Your task to perform on an android device: Go to Reddit.com Image 0: 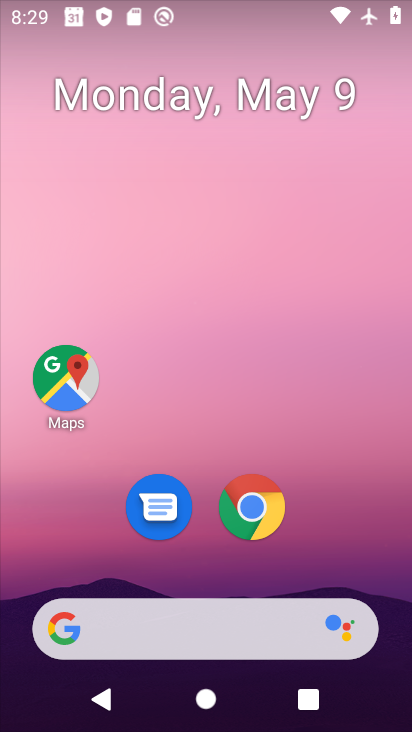
Step 0: click (256, 527)
Your task to perform on an android device: Go to Reddit.com Image 1: 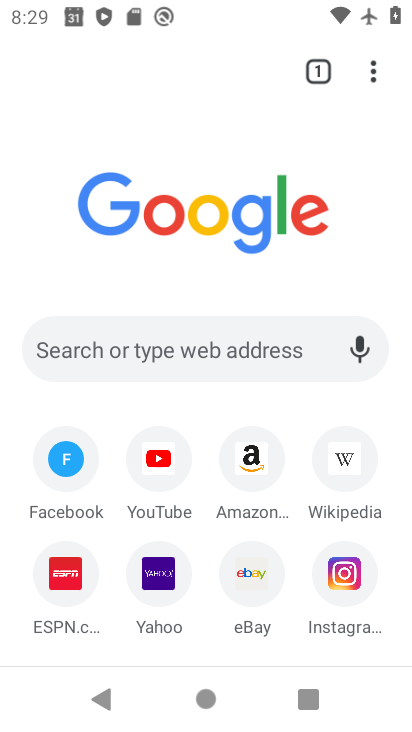
Step 1: click (232, 344)
Your task to perform on an android device: Go to Reddit.com Image 2: 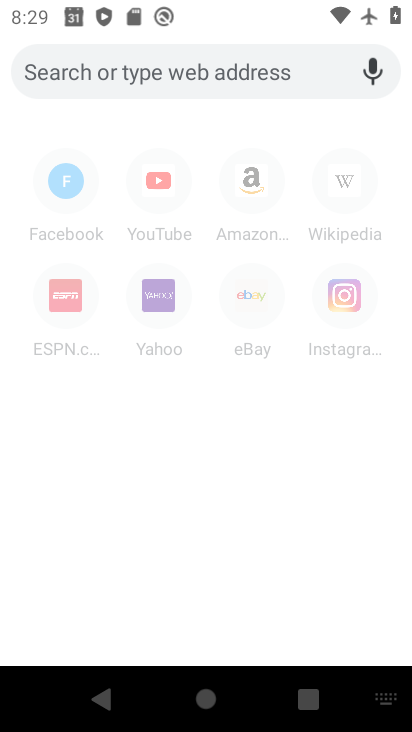
Step 2: type "reddit"
Your task to perform on an android device: Go to Reddit.com Image 3: 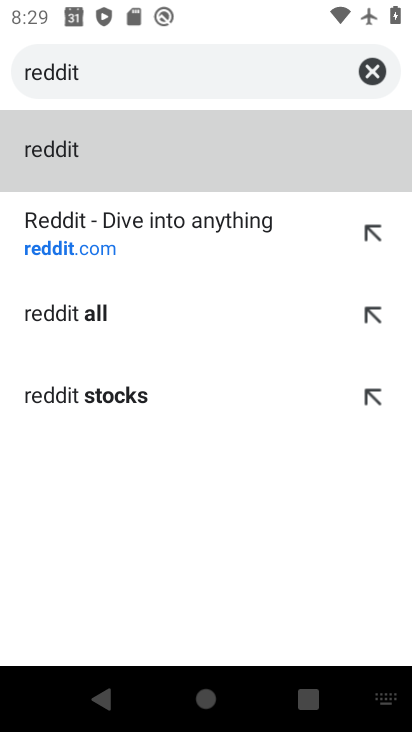
Step 3: click (175, 253)
Your task to perform on an android device: Go to Reddit.com Image 4: 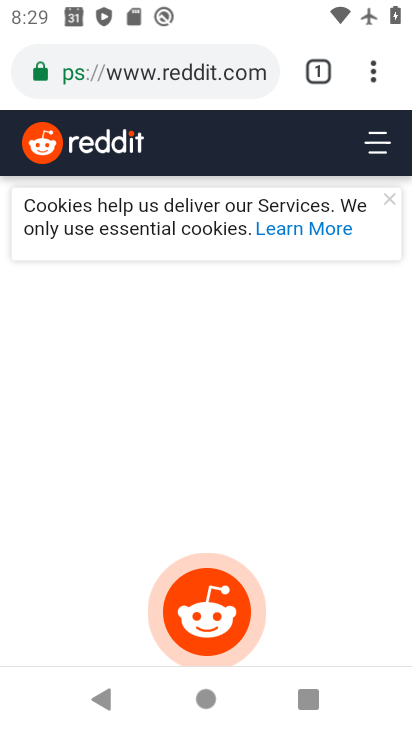
Step 4: task complete